Your task to perform on an android device: Show me the alarms in the clock app Image 0: 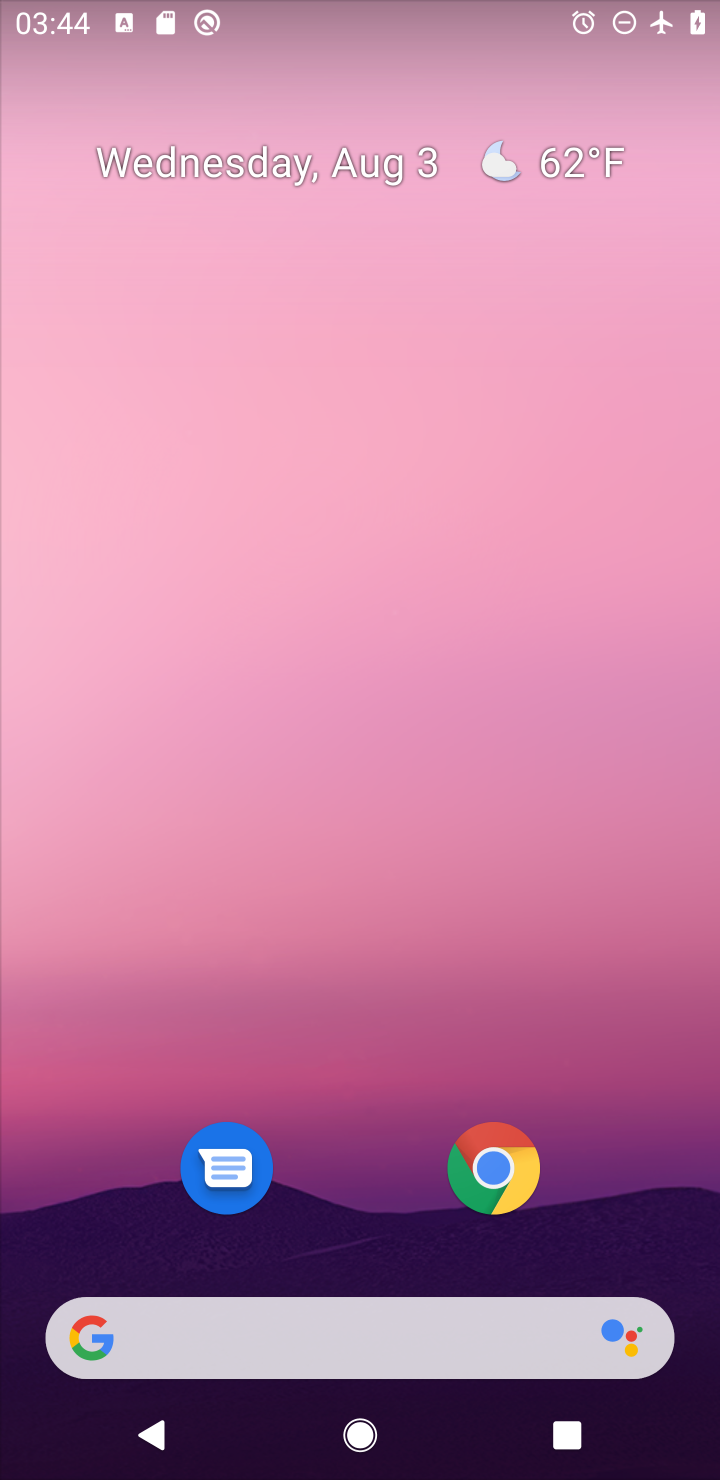
Step 0: drag from (656, 1139) to (588, 273)
Your task to perform on an android device: Show me the alarms in the clock app Image 1: 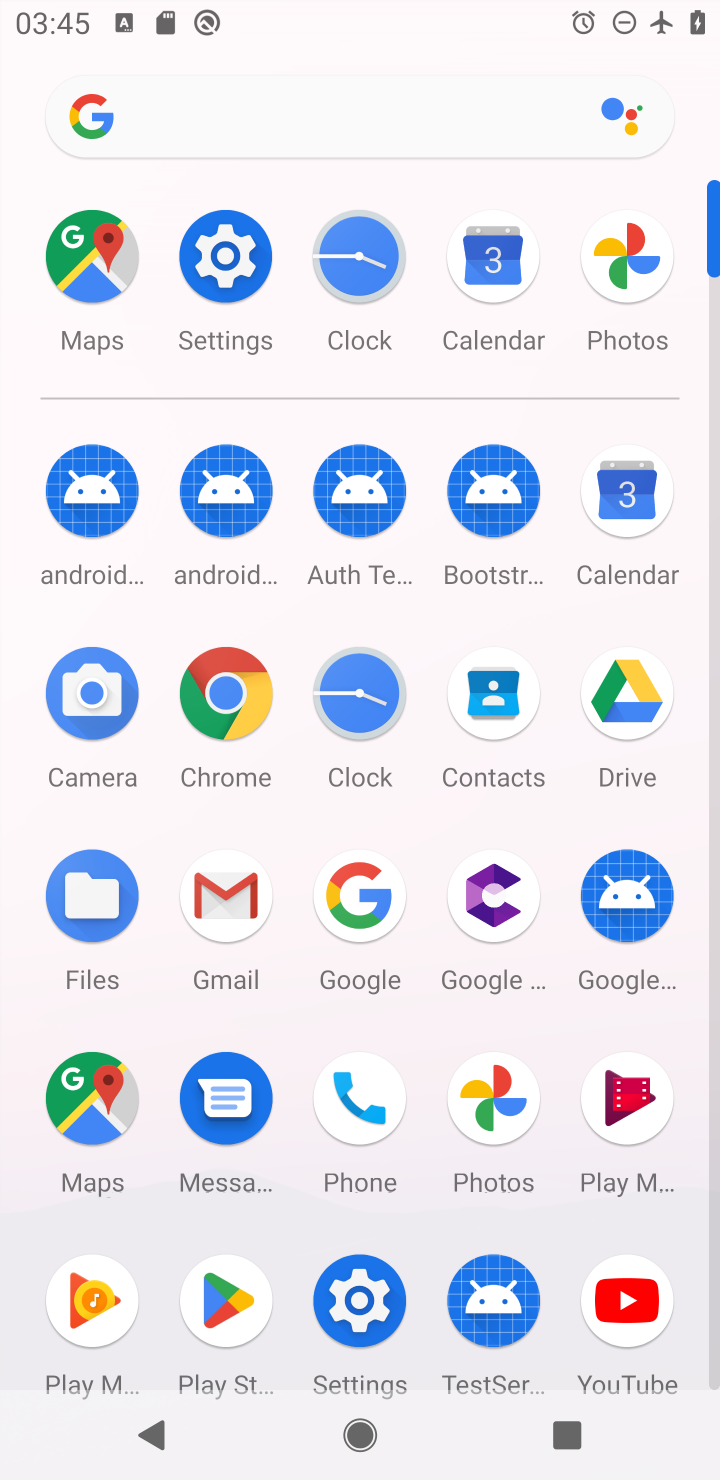
Step 1: click (356, 694)
Your task to perform on an android device: Show me the alarms in the clock app Image 2: 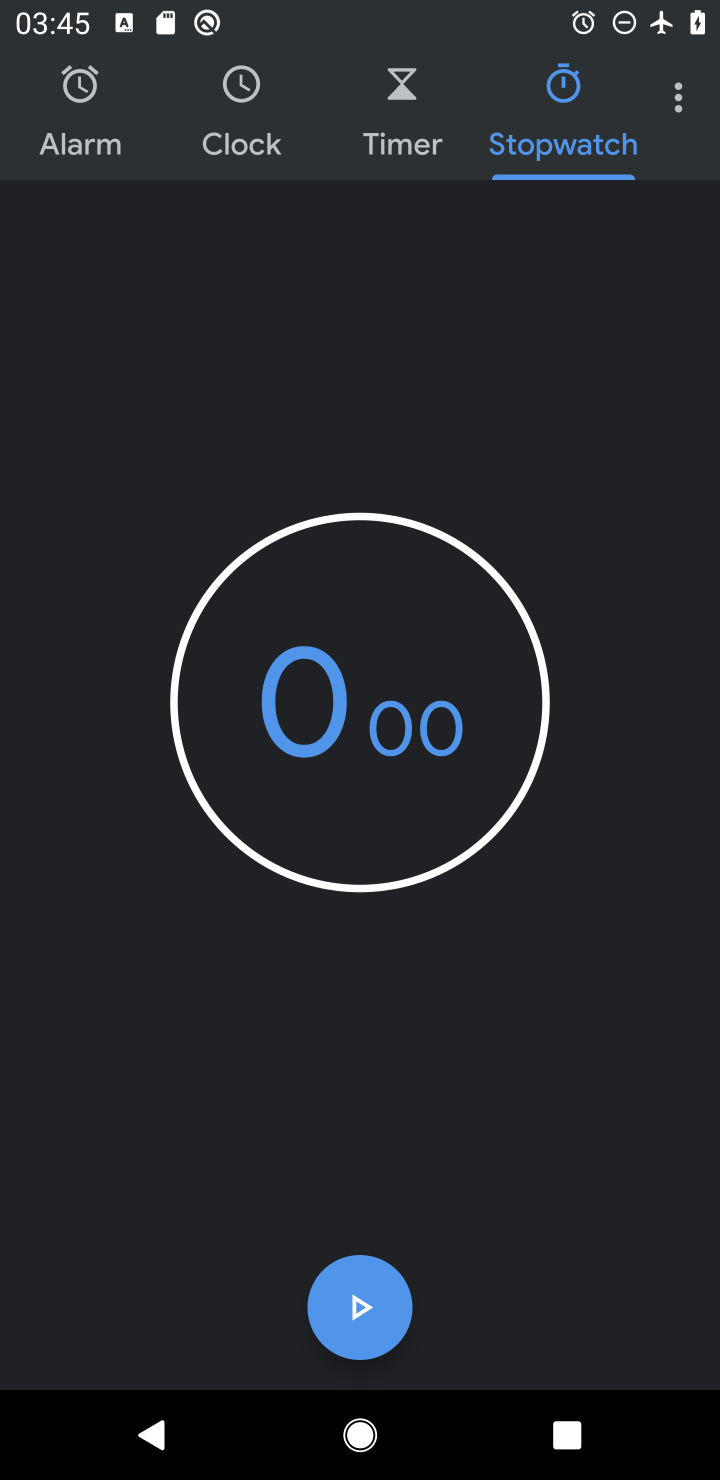
Step 2: click (82, 91)
Your task to perform on an android device: Show me the alarms in the clock app Image 3: 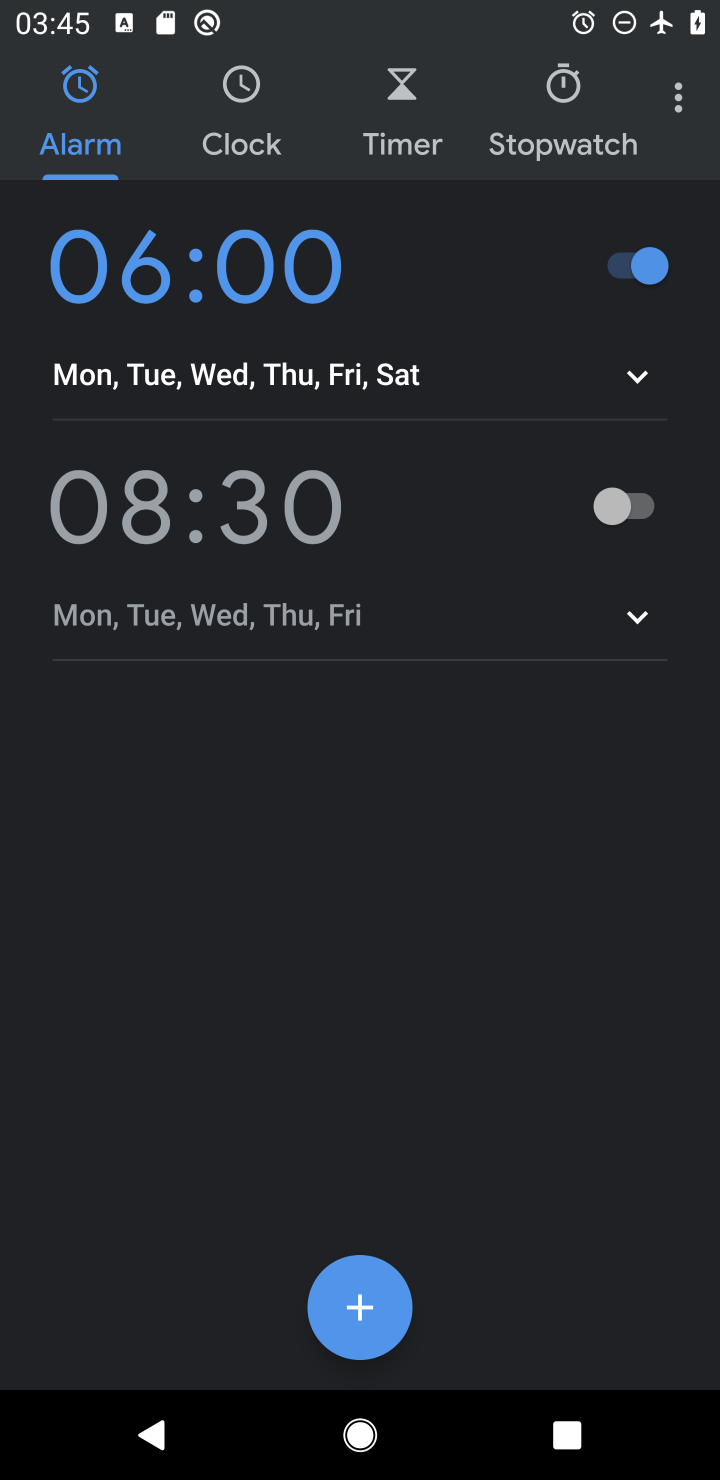
Step 3: task complete